Your task to perform on an android device: empty trash in the gmail app Image 0: 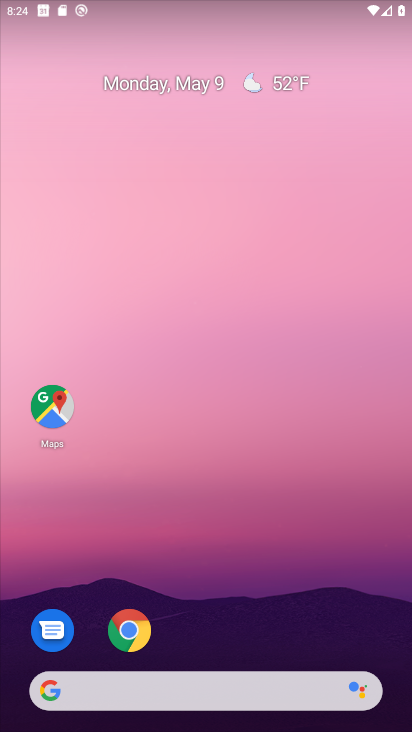
Step 0: drag from (233, 633) to (303, 28)
Your task to perform on an android device: empty trash in the gmail app Image 1: 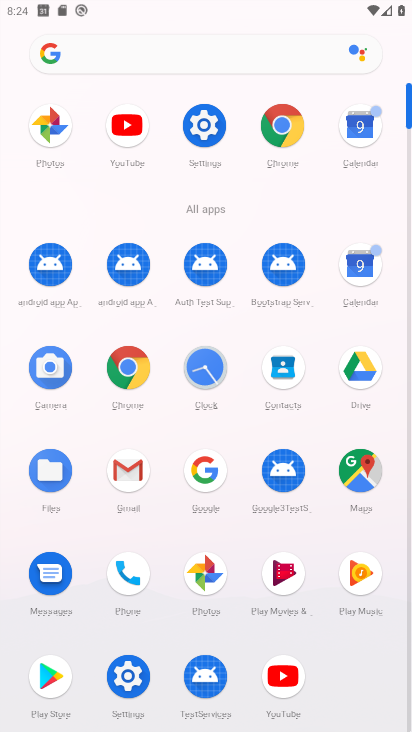
Step 1: click (119, 489)
Your task to perform on an android device: empty trash in the gmail app Image 2: 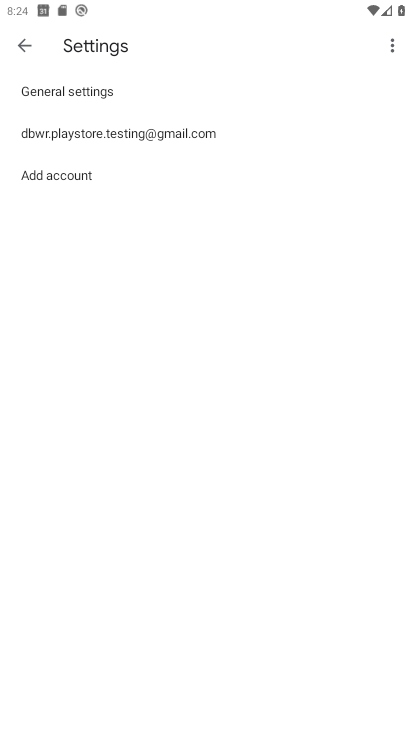
Step 2: click (24, 37)
Your task to perform on an android device: empty trash in the gmail app Image 3: 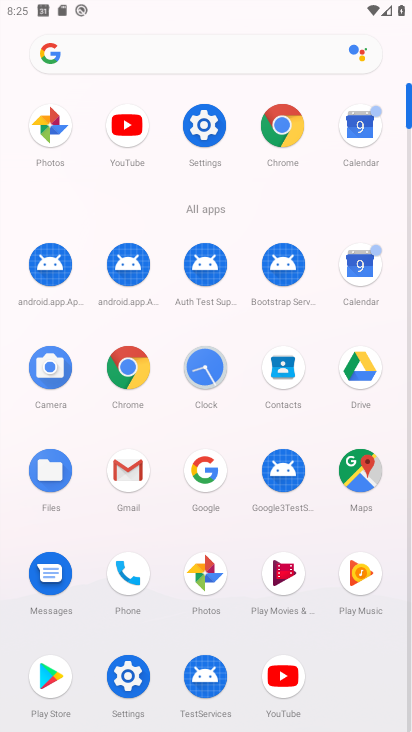
Step 3: click (156, 459)
Your task to perform on an android device: empty trash in the gmail app Image 4: 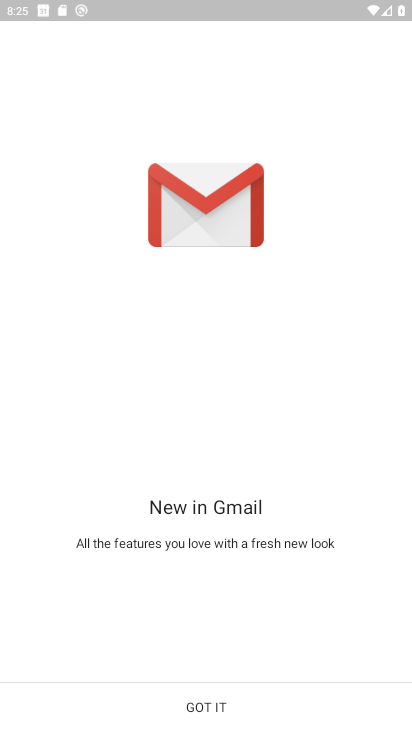
Step 4: click (207, 704)
Your task to perform on an android device: empty trash in the gmail app Image 5: 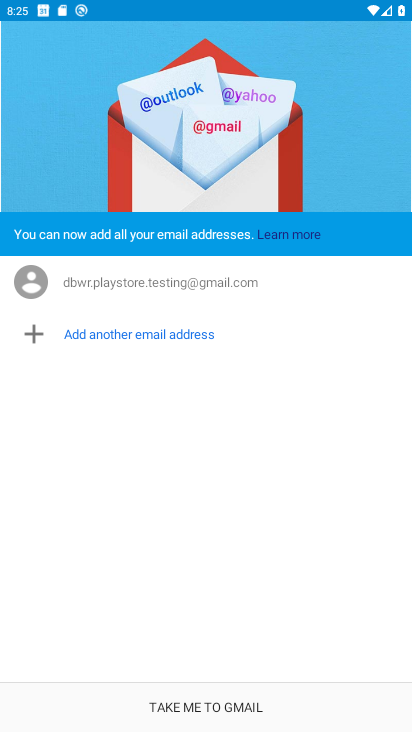
Step 5: click (185, 716)
Your task to perform on an android device: empty trash in the gmail app Image 6: 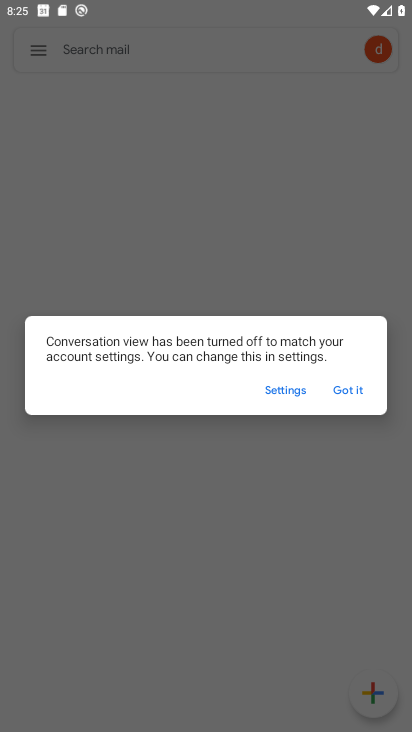
Step 6: click (349, 392)
Your task to perform on an android device: empty trash in the gmail app Image 7: 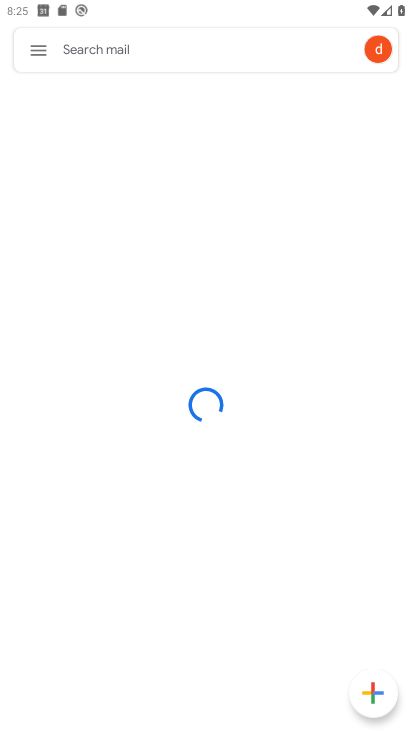
Step 7: click (42, 50)
Your task to perform on an android device: empty trash in the gmail app Image 8: 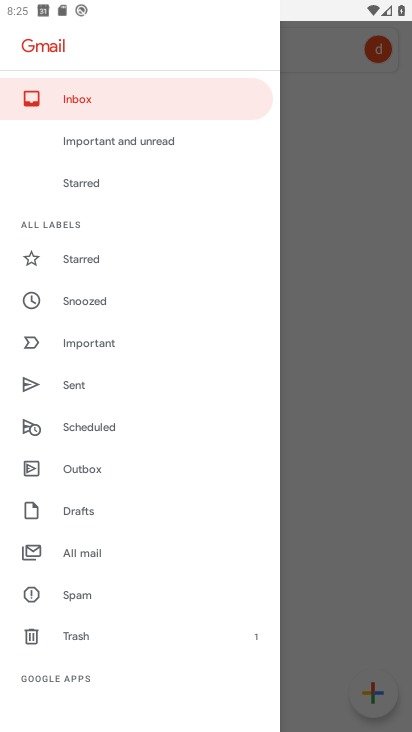
Step 8: click (84, 636)
Your task to perform on an android device: empty trash in the gmail app Image 9: 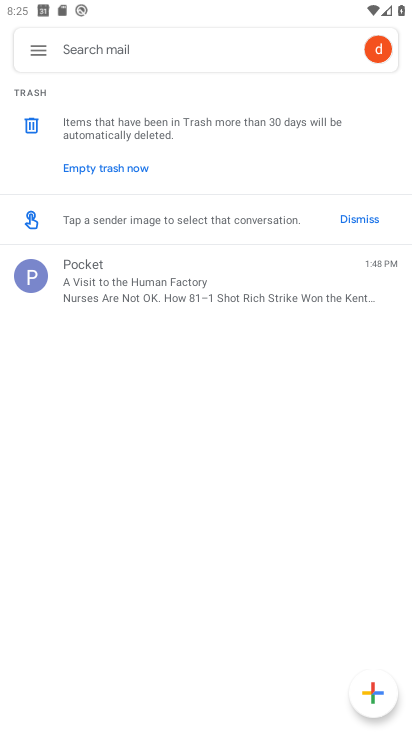
Step 9: click (126, 170)
Your task to perform on an android device: empty trash in the gmail app Image 10: 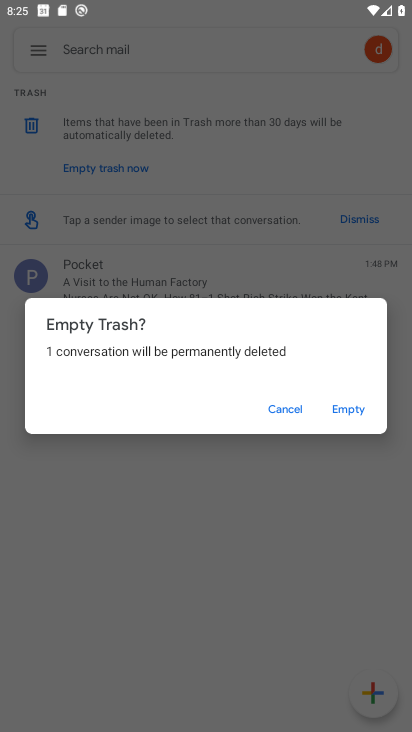
Step 10: click (366, 419)
Your task to perform on an android device: empty trash in the gmail app Image 11: 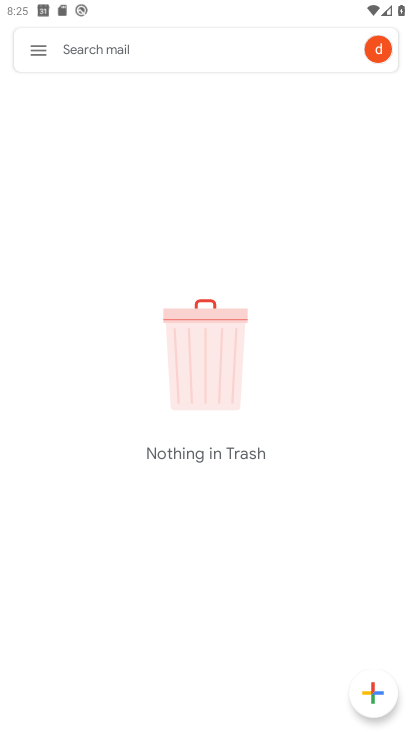
Step 11: task complete